Your task to perform on an android device: Play the last video I watched on Youtube Image 0: 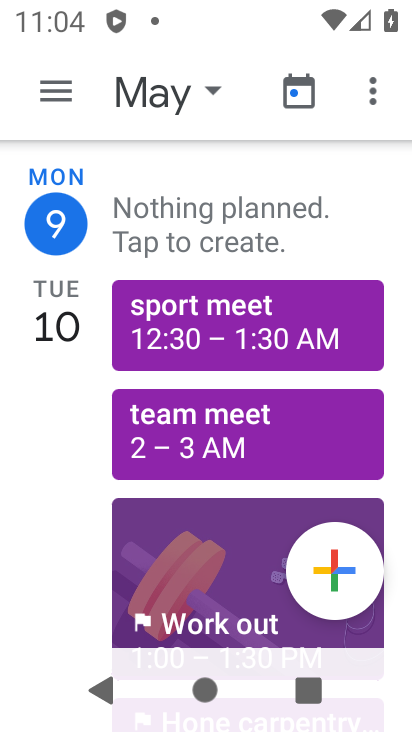
Step 0: drag from (379, 550) to (411, 457)
Your task to perform on an android device: Play the last video I watched on Youtube Image 1: 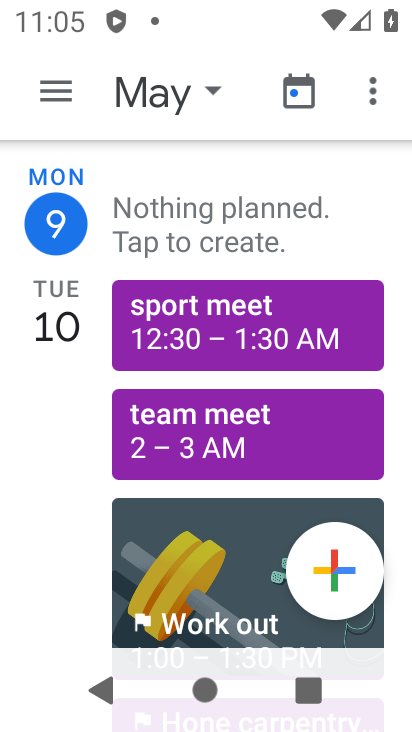
Step 1: press home button
Your task to perform on an android device: Play the last video I watched on Youtube Image 2: 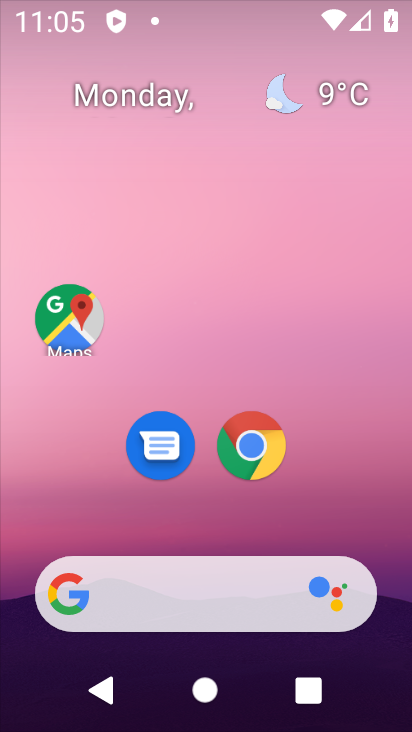
Step 2: drag from (340, 655) to (382, 59)
Your task to perform on an android device: Play the last video I watched on Youtube Image 3: 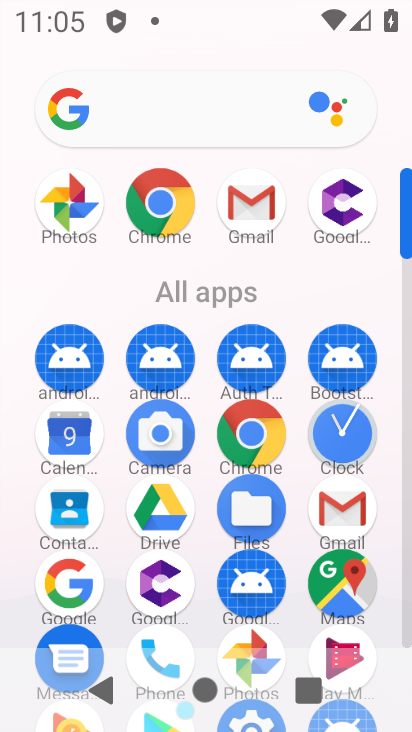
Step 3: click (387, 564)
Your task to perform on an android device: Play the last video I watched on Youtube Image 4: 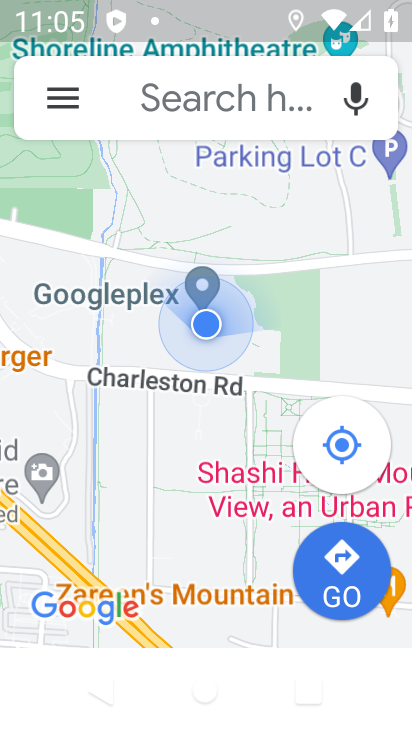
Step 4: task complete